Your task to perform on an android device: delete location history Image 0: 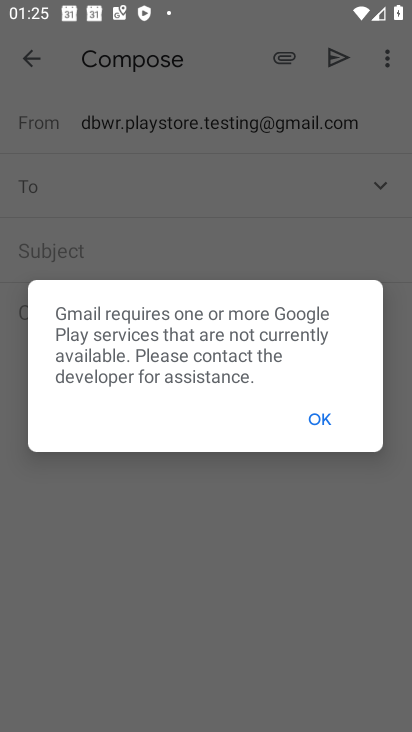
Step 0: press home button
Your task to perform on an android device: delete location history Image 1: 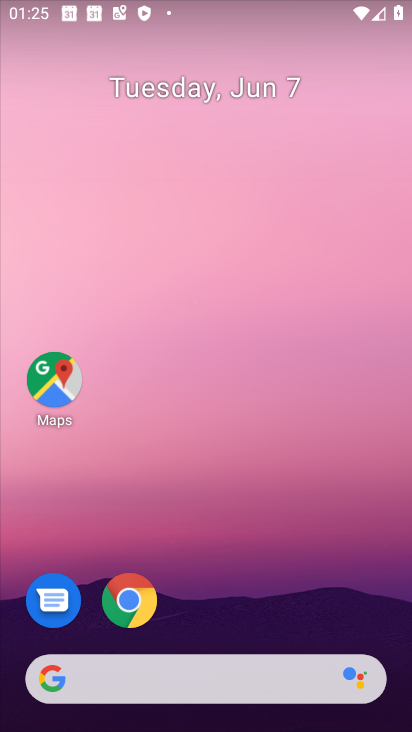
Step 1: drag from (236, 721) to (157, 54)
Your task to perform on an android device: delete location history Image 2: 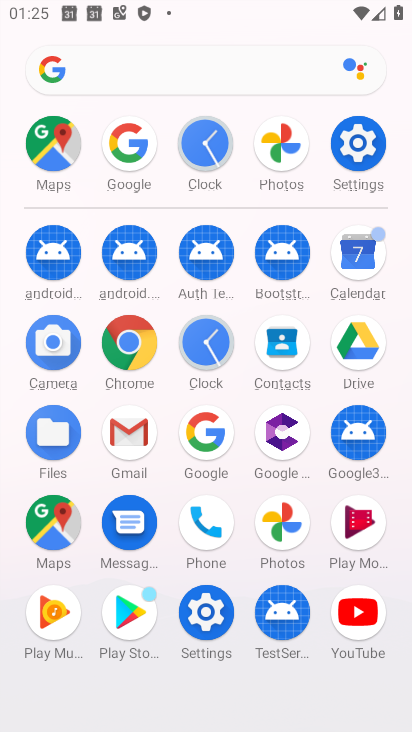
Step 2: click (54, 524)
Your task to perform on an android device: delete location history Image 3: 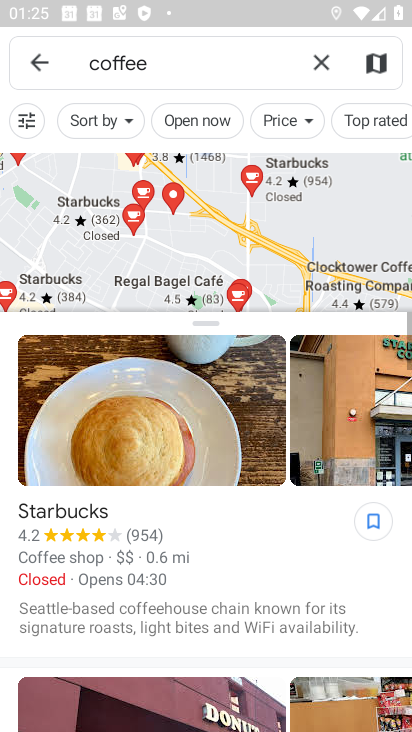
Step 3: click (39, 59)
Your task to perform on an android device: delete location history Image 4: 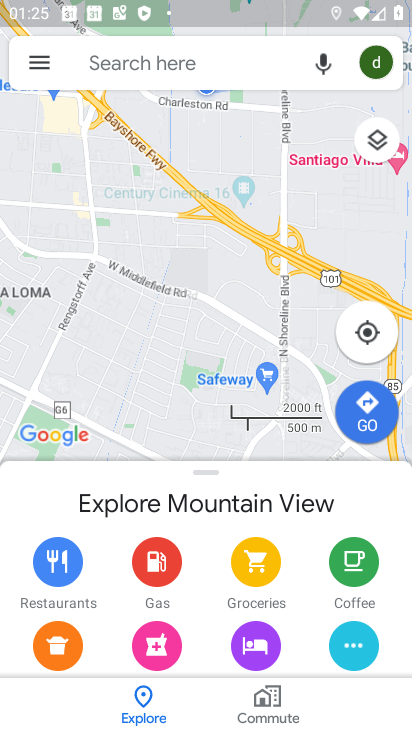
Step 4: click (39, 59)
Your task to perform on an android device: delete location history Image 5: 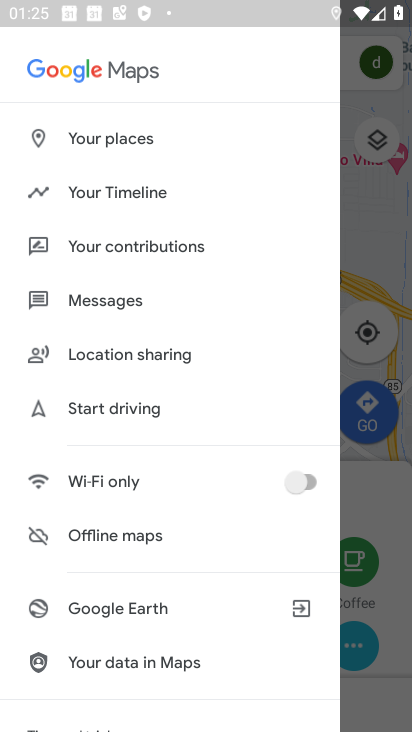
Step 5: drag from (144, 663) to (134, 401)
Your task to perform on an android device: delete location history Image 6: 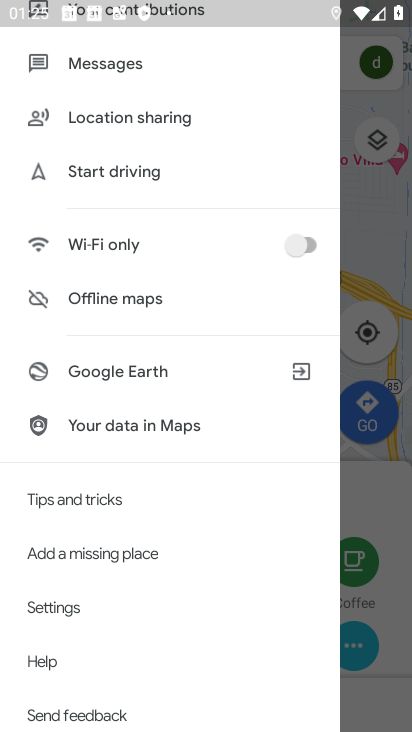
Step 6: drag from (220, 112) to (269, 470)
Your task to perform on an android device: delete location history Image 7: 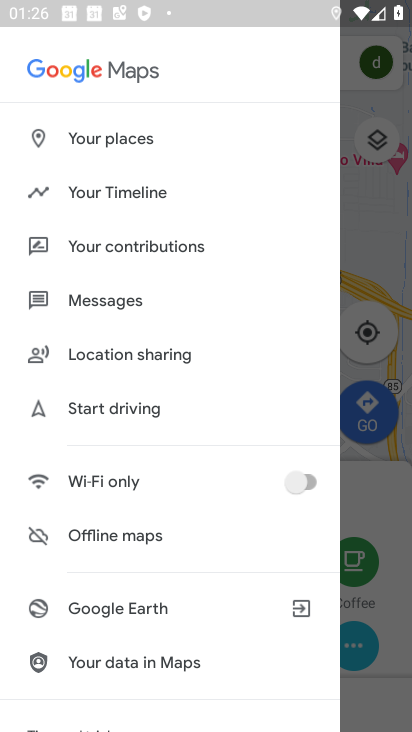
Step 7: click (114, 192)
Your task to perform on an android device: delete location history Image 8: 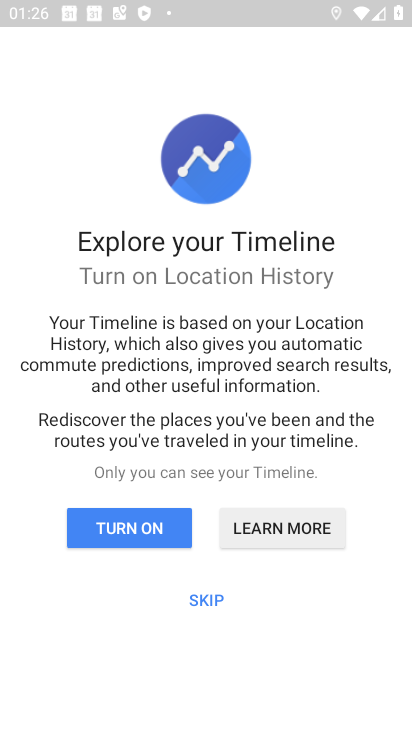
Step 8: click (211, 596)
Your task to perform on an android device: delete location history Image 9: 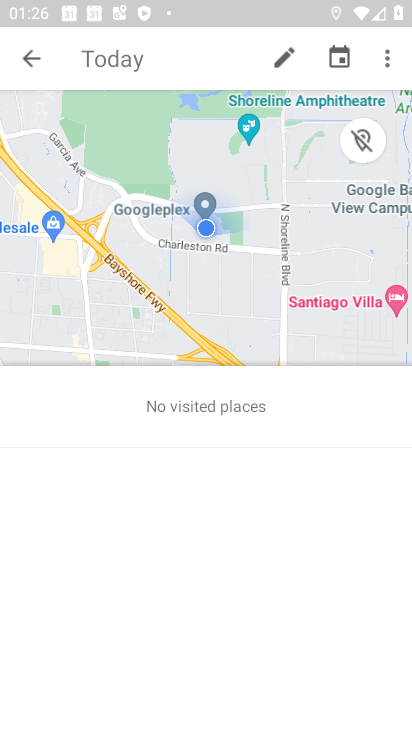
Step 9: click (387, 61)
Your task to perform on an android device: delete location history Image 10: 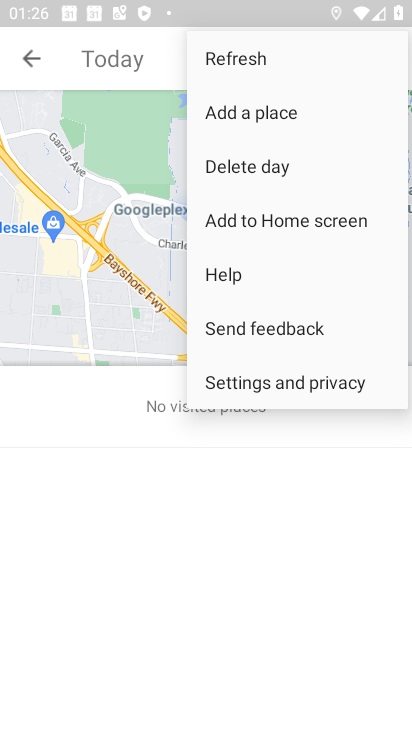
Step 10: click (280, 381)
Your task to perform on an android device: delete location history Image 11: 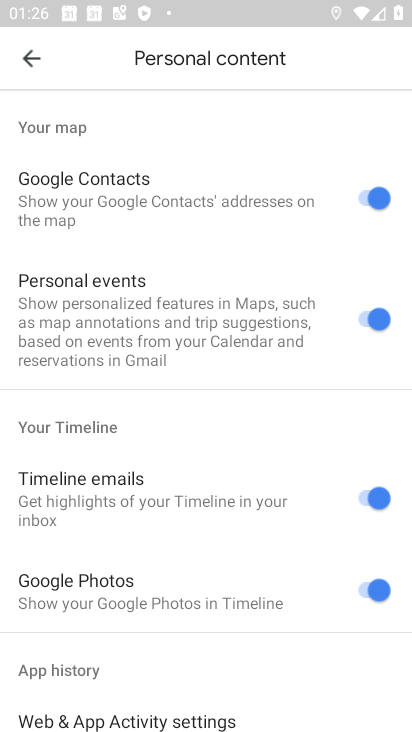
Step 11: drag from (157, 690) to (133, 145)
Your task to perform on an android device: delete location history Image 12: 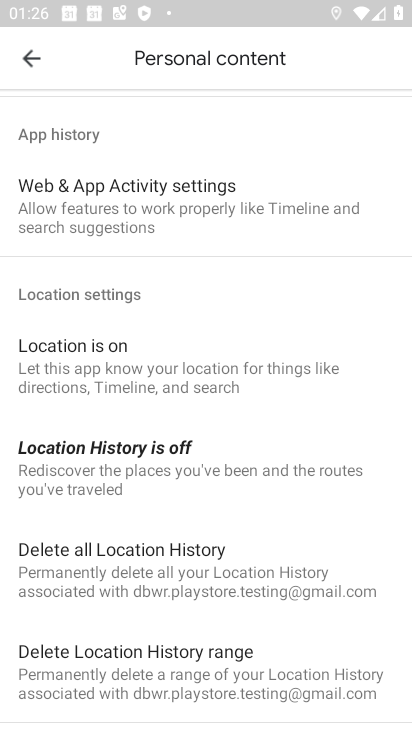
Step 12: click (184, 559)
Your task to perform on an android device: delete location history Image 13: 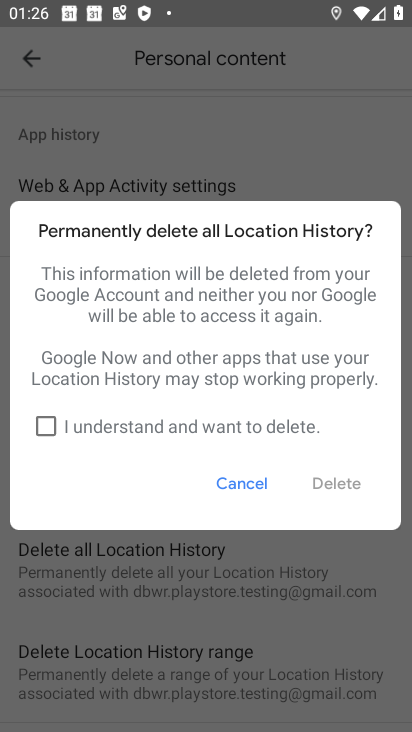
Step 13: click (43, 427)
Your task to perform on an android device: delete location history Image 14: 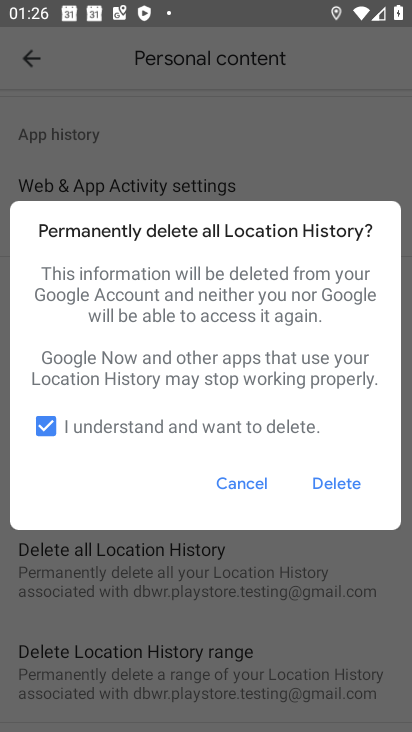
Step 14: click (334, 482)
Your task to perform on an android device: delete location history Image 15: 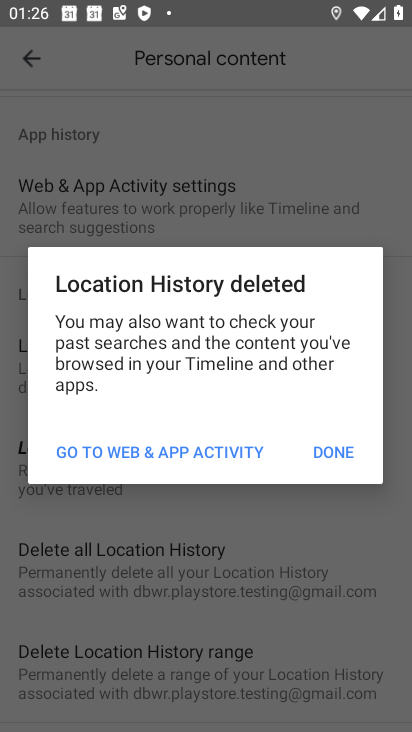
Step 15: click (331, 447)
Your task to perform on an android device: delete location history Image 16: 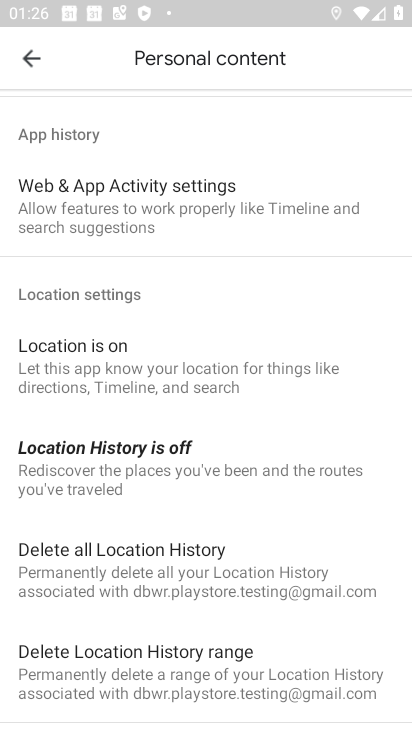
Step 16: task complete